Your task to perform on an android device: Open privacy settings Image 0: 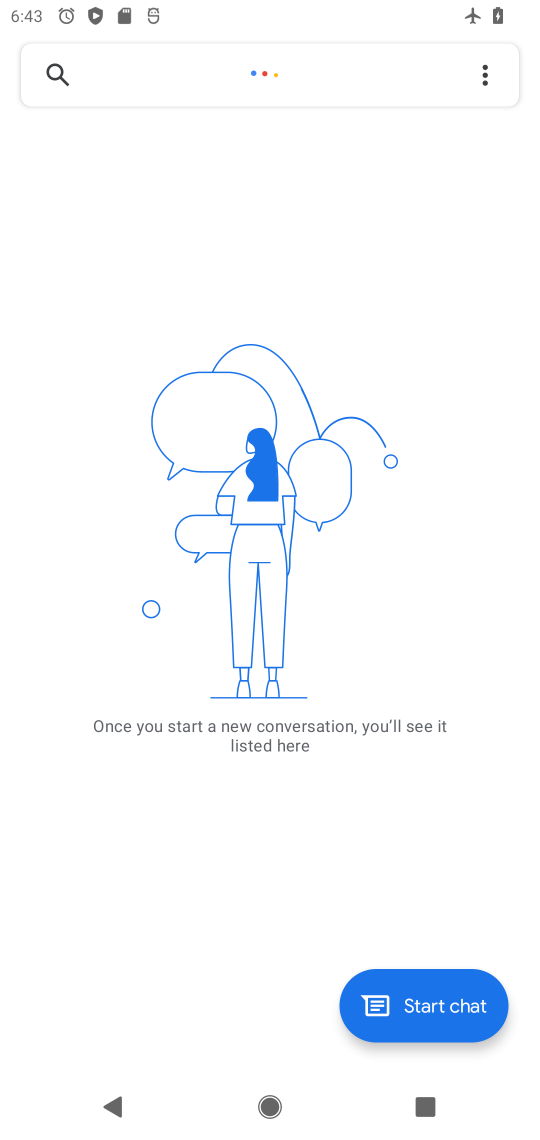
Step 0: press home button
Your task to perform on an android device: Open privacy settings Image 1: 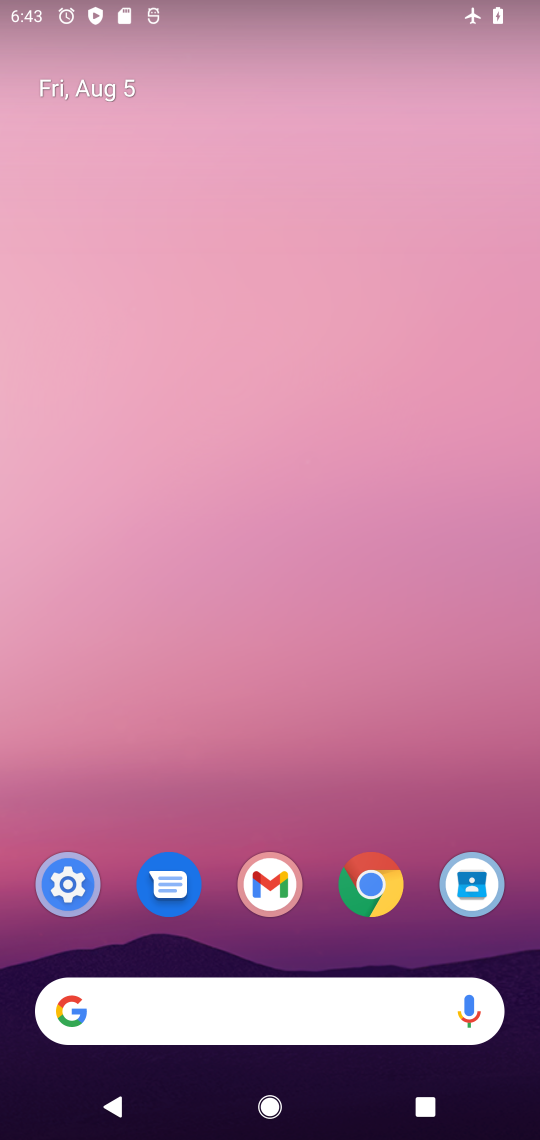
Step 1: drag from (305, 823) to (331, 22)
Your task to perform on an android device: Open privacy settings Image 2: 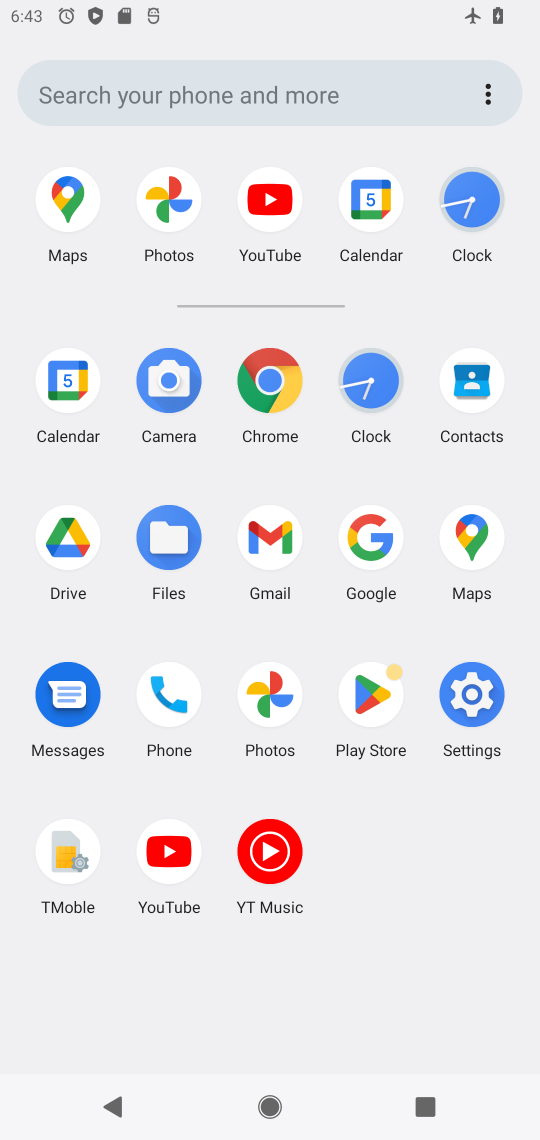
Step 2: click (466, 690)
Your task to perform on an android device: Open privacy settings Image 3: 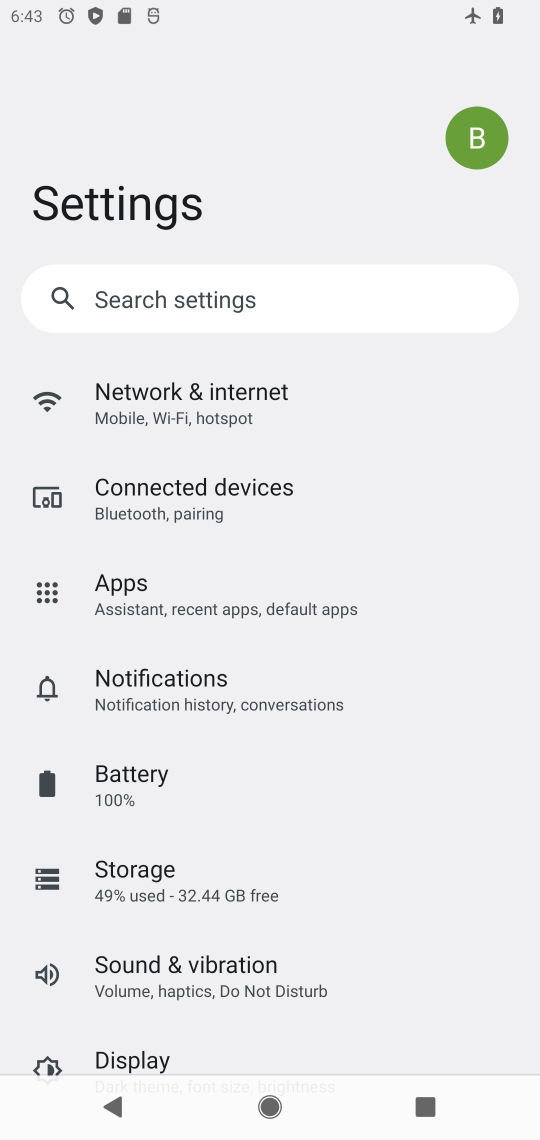
Step 3: drag from (295, 951) to (328, 266)
Your task to perform on an android device: Open privacy settings Image 4: 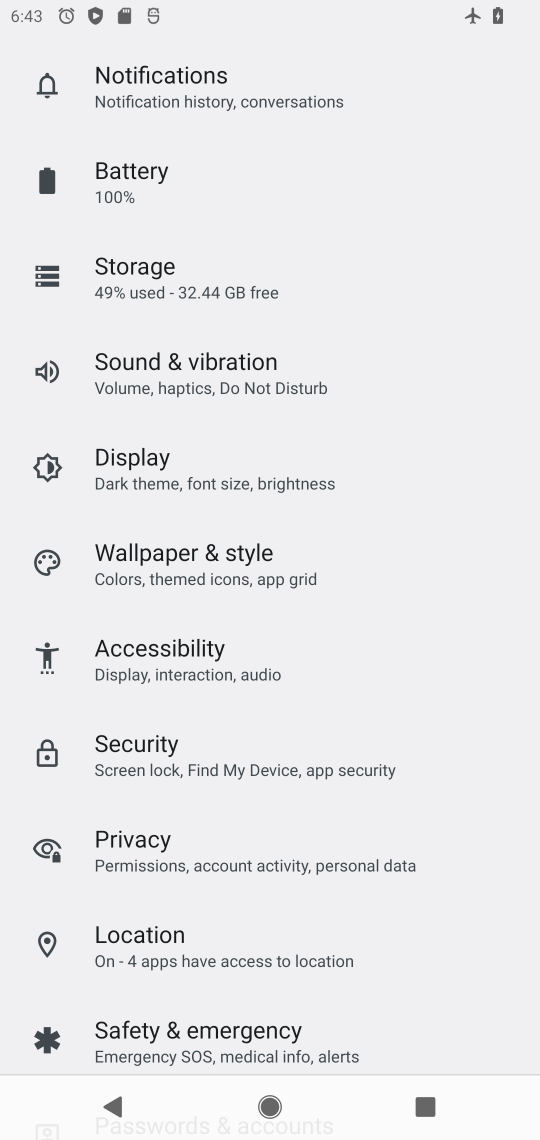
Step 4: click (186, 835)
Your task to perform on an android device: Open privacy settings Image 5: 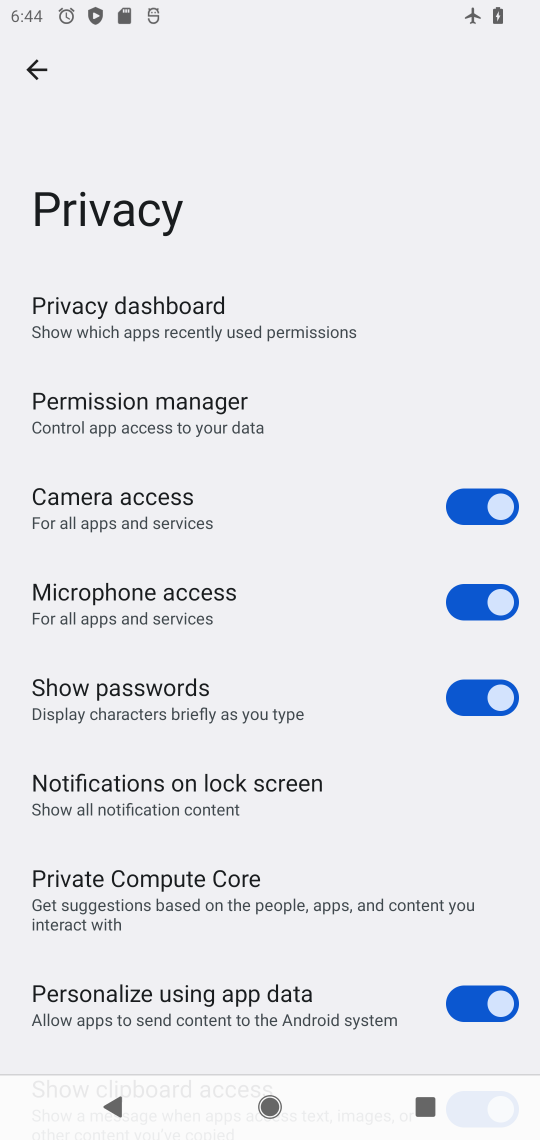
Step 5: task complete